Your task to perform on an android device: change text size in settings app Image 0: 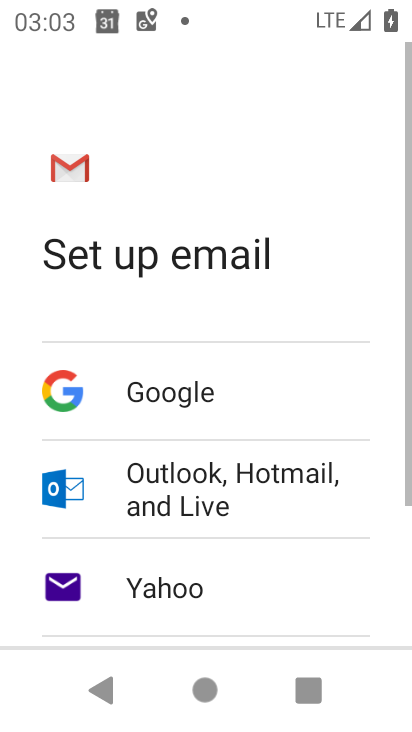
Step 0: press home button
Your task to perform on an android device: change text size in settings app Image 1: 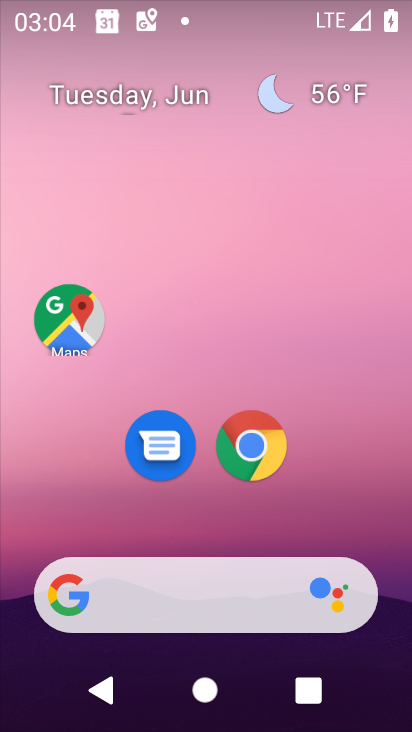
Step 1: drag from (244, 641) to (292, 198)
Your task to perform on an android device: change text size in settings app Image 2: 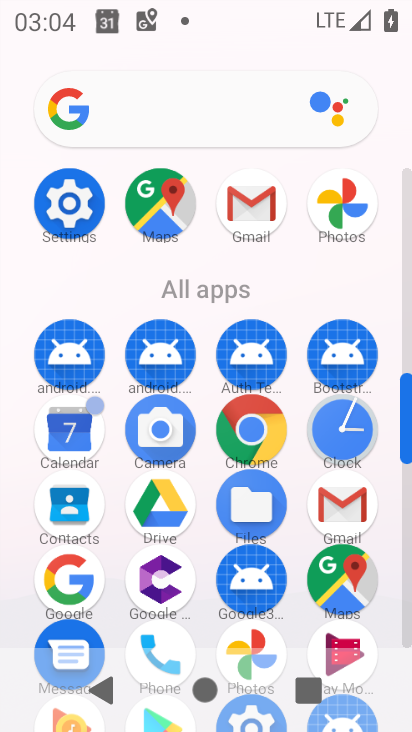
Step 2: click (77, 185)
Your task to perform on an android device: change text size in settings app Image 3: 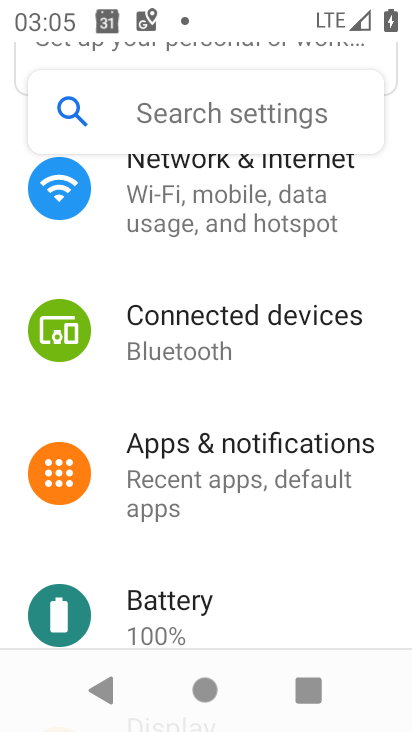
Step 3: drag from (246, 571) to (337, 50)
Your task to perform on an android device: change text size in settings app Image 4: 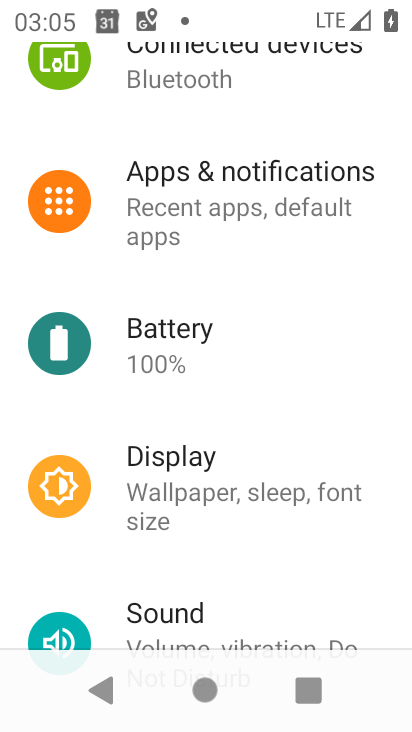
Step 4: click (233, 494)
Your task to perform on an android device: change text size in settings app Image 5: 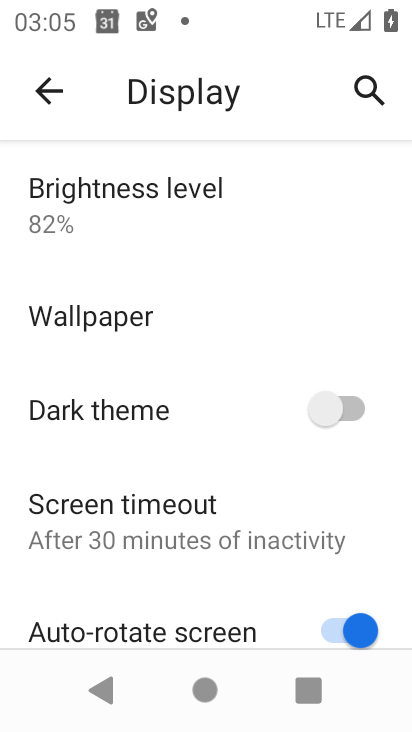
Step 5: drag from (231, 533) to (311, 74)
Your task to perform on an android device: change text size in settings app Image 6: 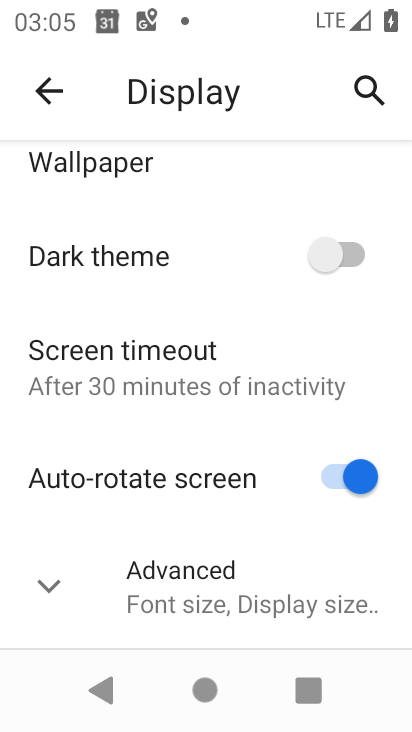
Step 6: click (261, 584)
Your task to perform on an android device: change text size in settings app Image 7: 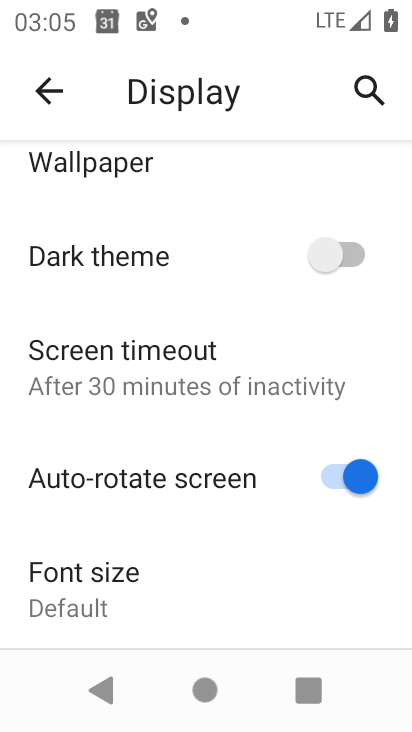
Step 7: click (88, 598)
Your task to perform on an android device: change text size in settings app Image 8: 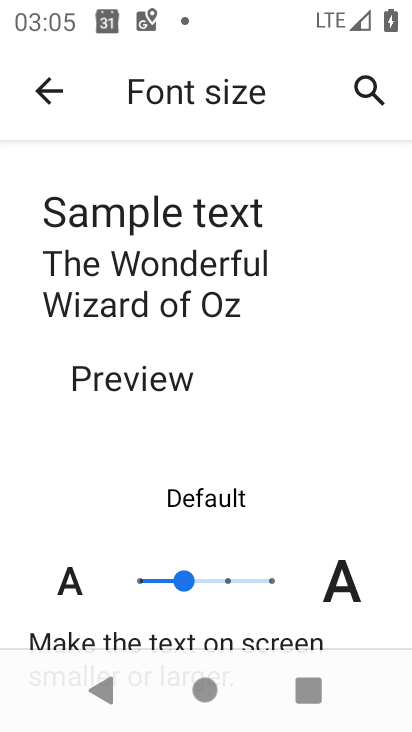
Step 8: click (134, 583)
Your task to perform on an android device: change text size in settings app Image 9: 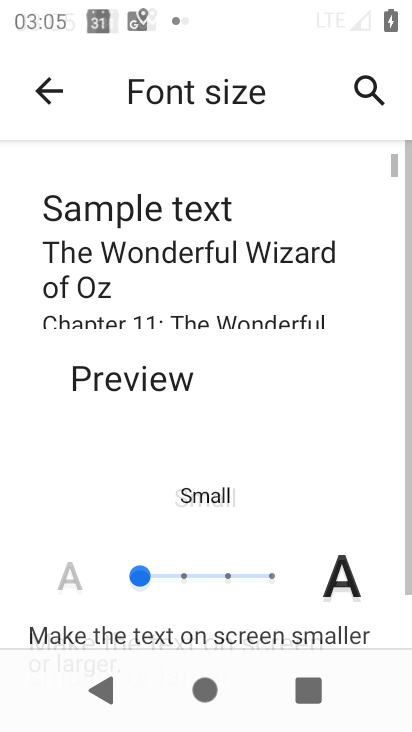
Step 9: task complete